Your task to perform on an android device: Turn off the flashlight Image 0: 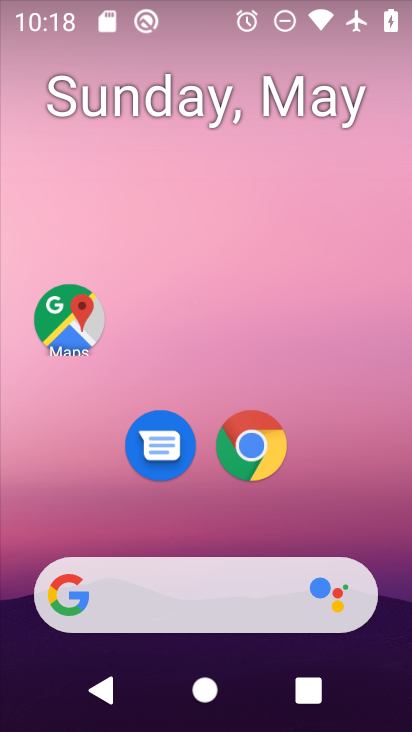
Step 0: drag from (219, 551) to (215, 188)
Your task to perform on an android device: Turn off the flashlight Image 1: 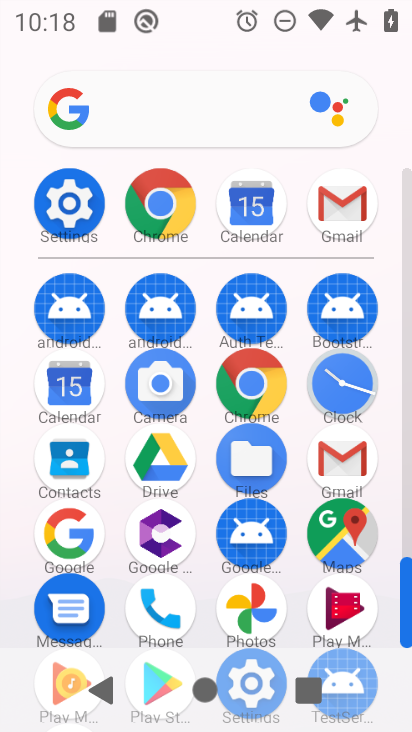
Step 1: task complete